Your task to perform on an android device: See recent photos Image 0: 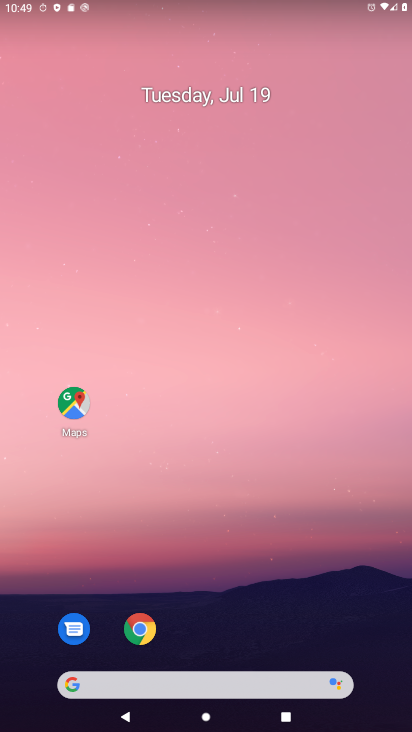
Step 0: drag from (244, 695) to (71, 13)
Your task to perform on an android device: See recent photos Image 1: 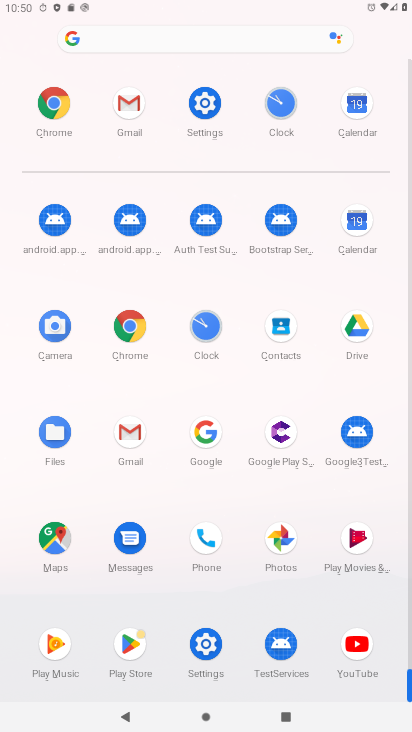
Step 1: click (278, 522)
Your task to perform on an android device: See recent photos Image 2: 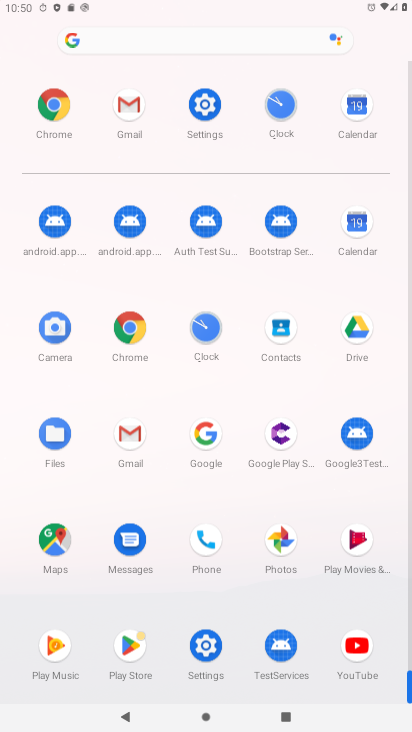
Step 2: click (283, 529)
Your task to perform on an android device: See recent photos Image 3: 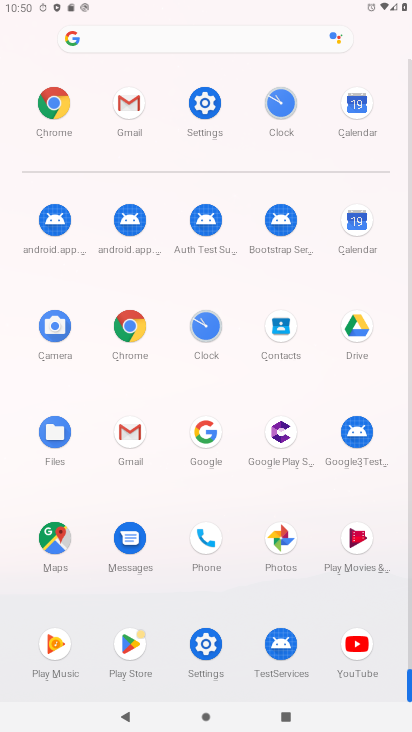
Step 3: click (283, 530)
Your task to perform on an android device: See recent photos Image 4: 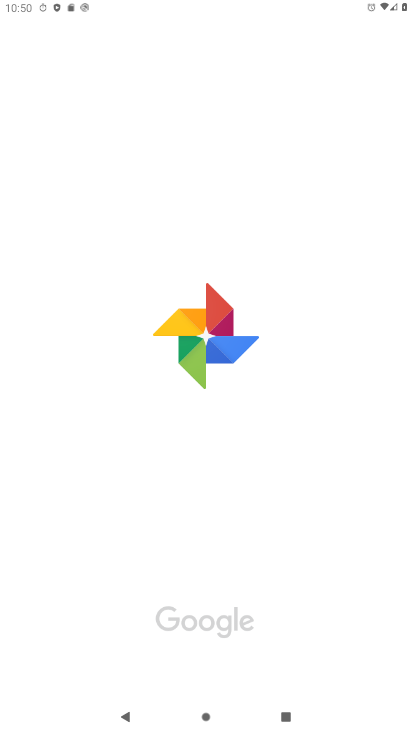
Step 4: click (285, 530)
Your task to perform on an android device: See recent photos Image 5: 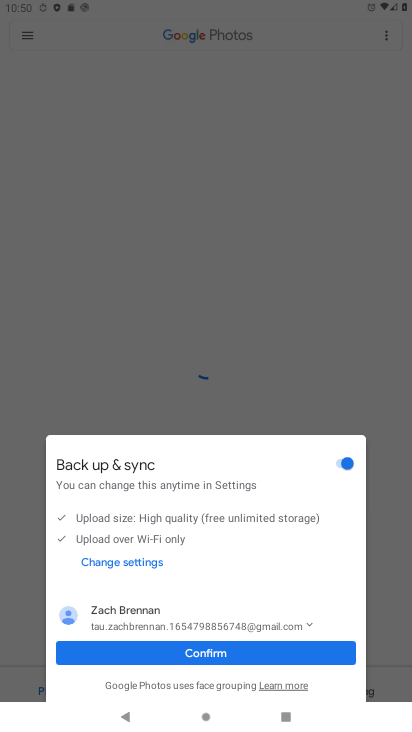
Step 5: click (238, 652)
Your task to perform on an android device: See recent photos Image 6: 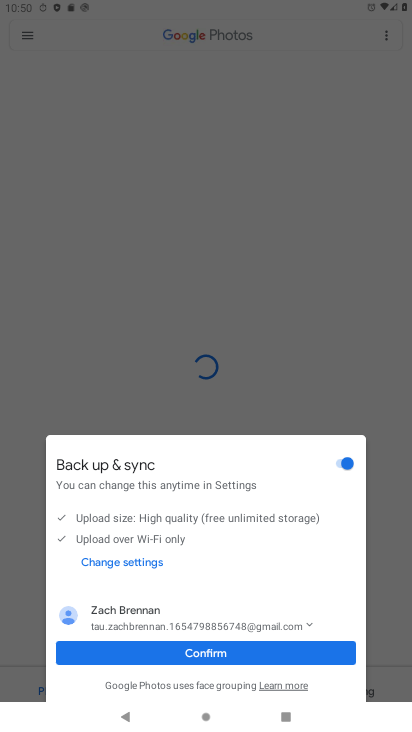
Step 6: click (237, 645)
Your task to perform on an android device: See recent photos Image 7: 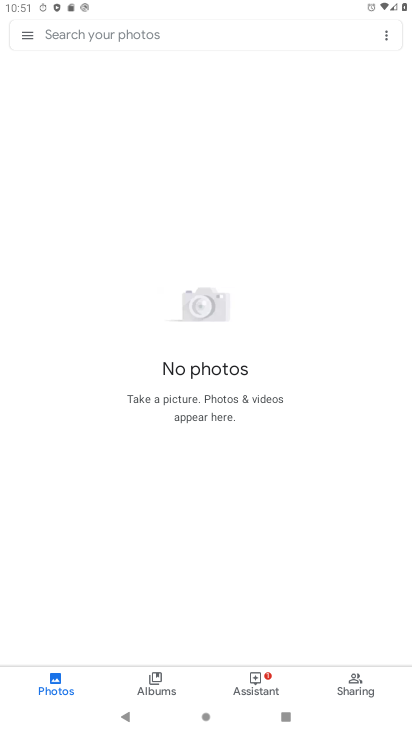
Step 7: task complete